Your task to perform on an android device: toggle notifications settings in the gmail app Image 0: 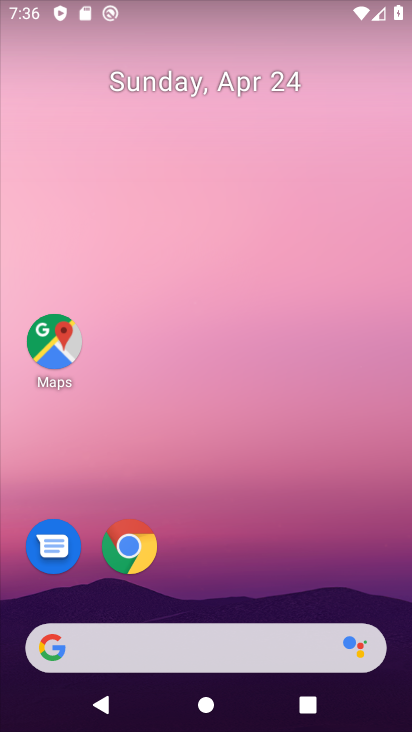
Step 0: drag from (207, 595) to (192, 8)
Your task to perform on an android device: toggle notifications settings in the gmail app Image 1: 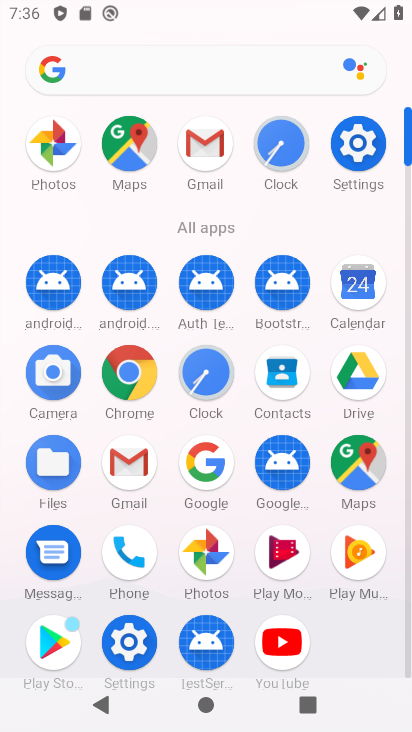
Step 1: click (213, 160)
Your task to perform on an android device: toggle notifications settings in the gmail app Image 2: 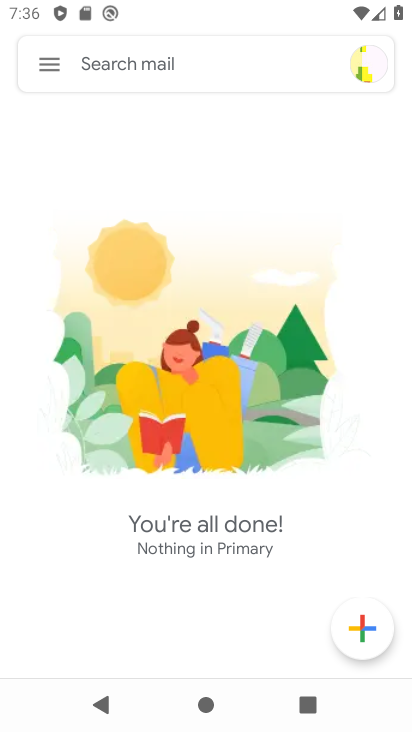
Step 2: click (43, 82)
Your task to perform on an android device: toggle notifications settings in the gmail app Image 3: 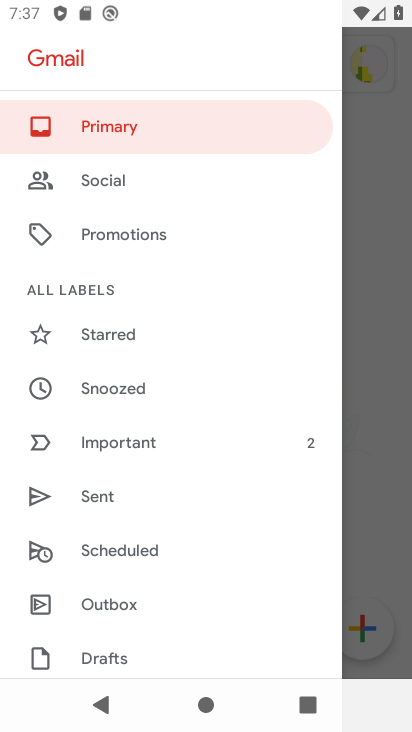
Step 3: drag from (157, 460) to (163, 23)
Your task to perform on an android device: toggle notifications settings in the gmail app Image 4: 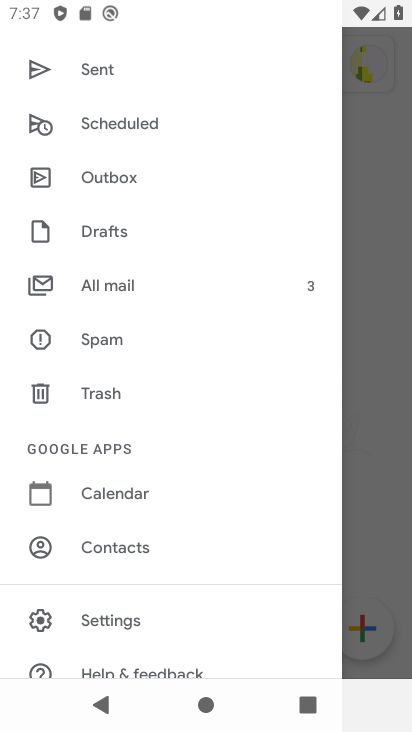
Step 4: click (123, 620)
Your task to perform on an android device: toggle notifications settings in the gmail app Image 5: 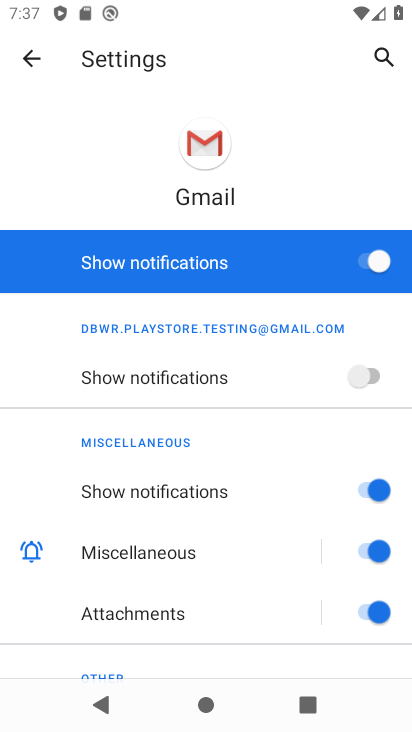
Step 5: click (348, 263)
Your task to perform on an android device: toggle notifications settings in the gmail app Image 6: 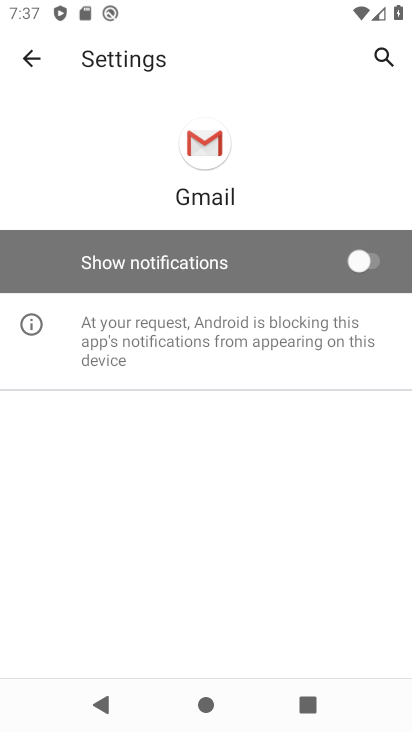
Step 6: task complete